Your task to perform on an android device: turn on bluetooth scan Image 0: 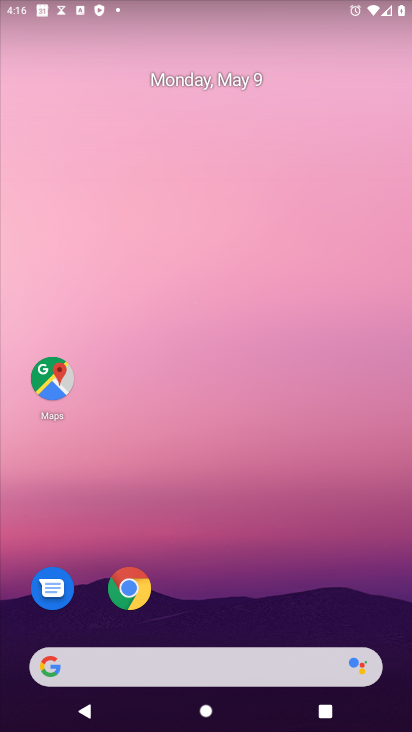
Step 0: drag from (305, 572) to (208, 98)
Your task to perform on an android device: turn on bluetooth scan Image 1: 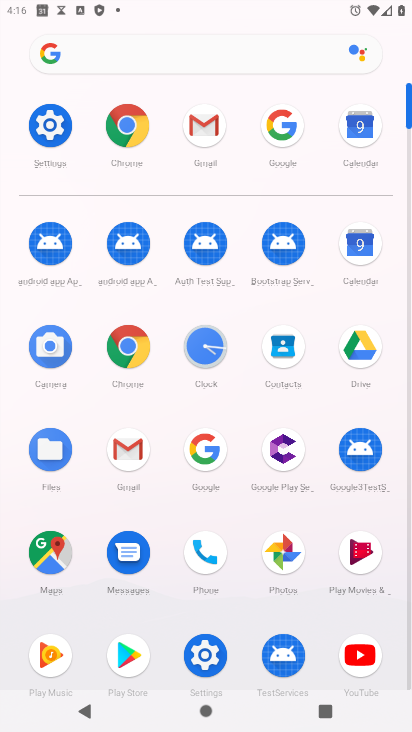
Step 1: click (59, 129)
Your task to perform on an android device: turn on bluetooth scan Image 2: 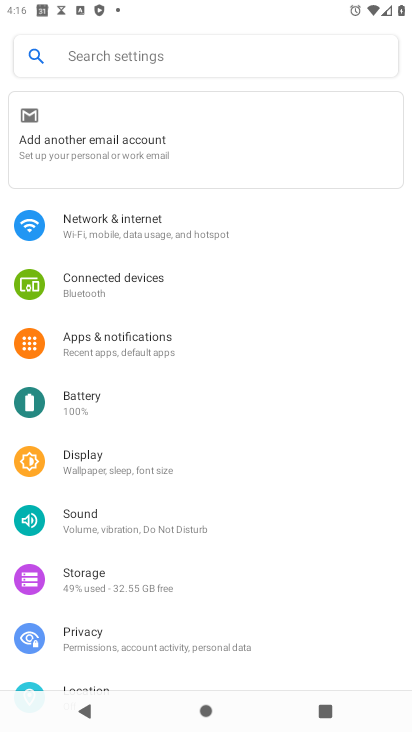
Step 2: drag from (181, 576) to (182, 248)
Your task to perform on an android device: turn on bluetooth scan Image 3: 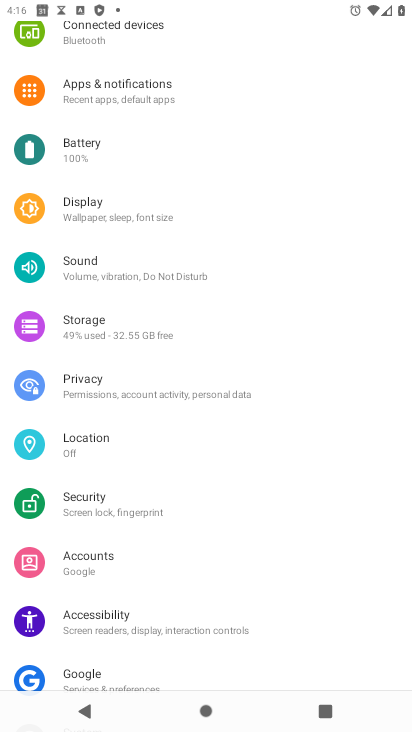
Step 3: click (156, 459)
Your task to perform on an android device: turn on bluetooth scan Image 4: 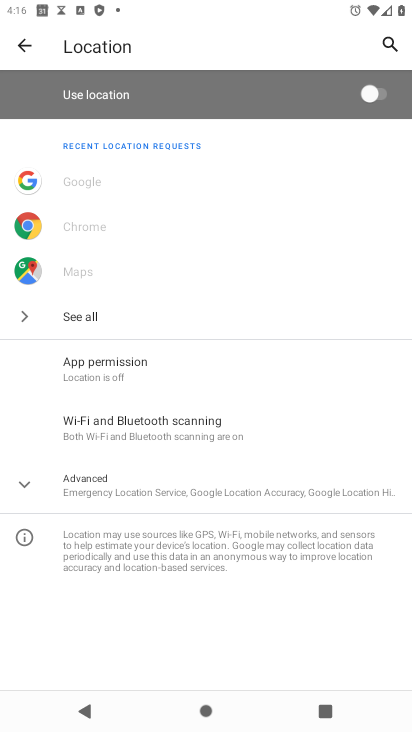
Step 4: click (241, 428)
Your task to perform on an android device: turn on bluetooth scan Image 5: 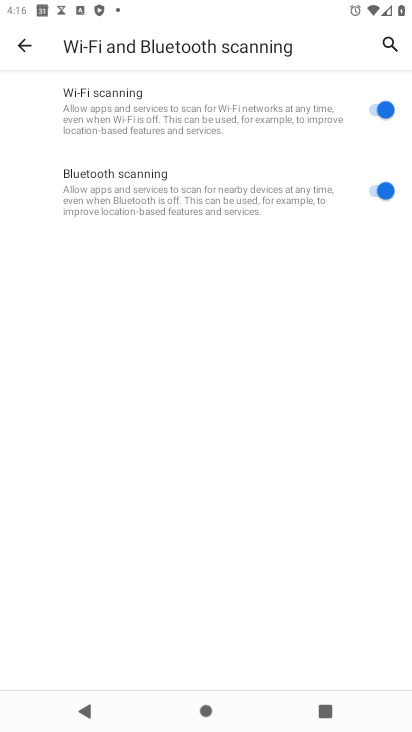
Step 5: task complete